Your task to perform on an android device: What's on my calendar tomorrow? Image 0: 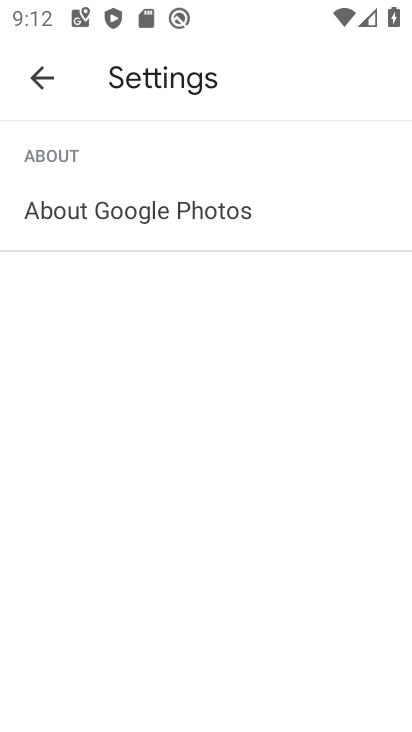
Step 0: press home button
Your task to perform on an android device: What's on my calendar tomorrow? Image 1: 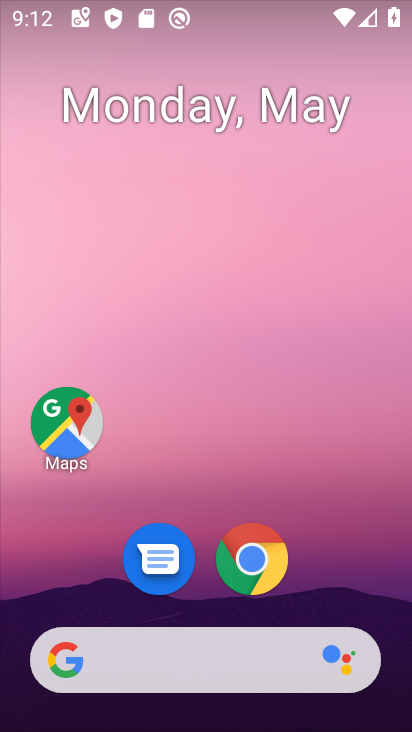
Step 1: drag from (337, 564) to (229, 164)
Your task to perform on an android device: What's on my calendar tomorrow? Image 2: 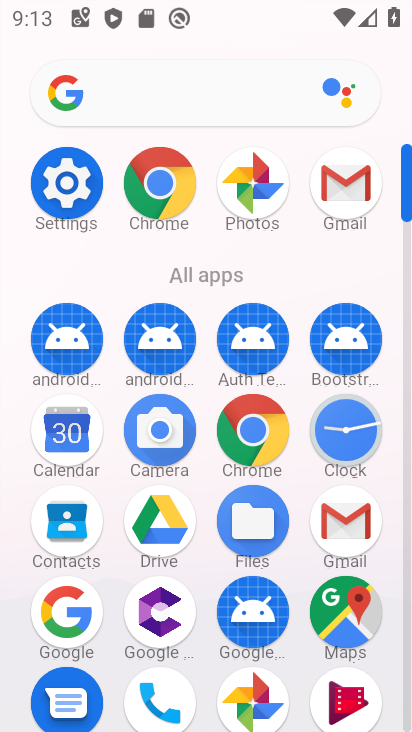
Step 2: click (66, 436)
Your task to perform on an android device: What's on my calendar tomorrow? Image 3: 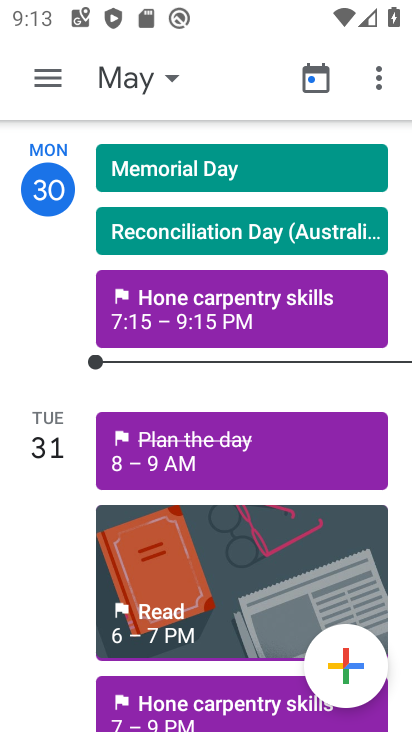
Step 3: click (46, 74)
Your task to perform on an android device: What's on my calendar tomorrow? Image 4: 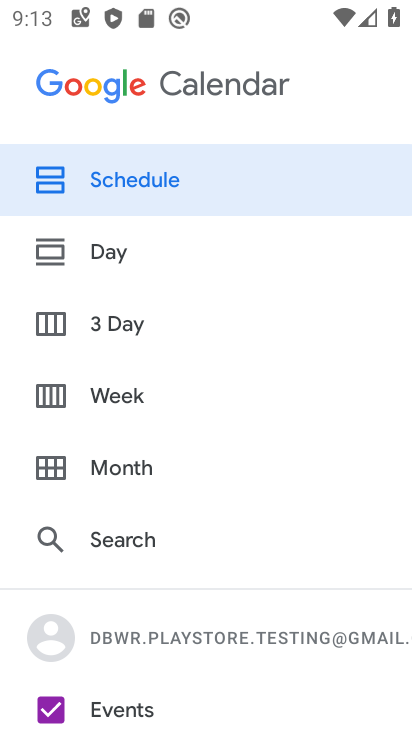
Step 4: click (96, 246)
Your task to perform on an android device: What's on my calendar tomorrow? Image 5: 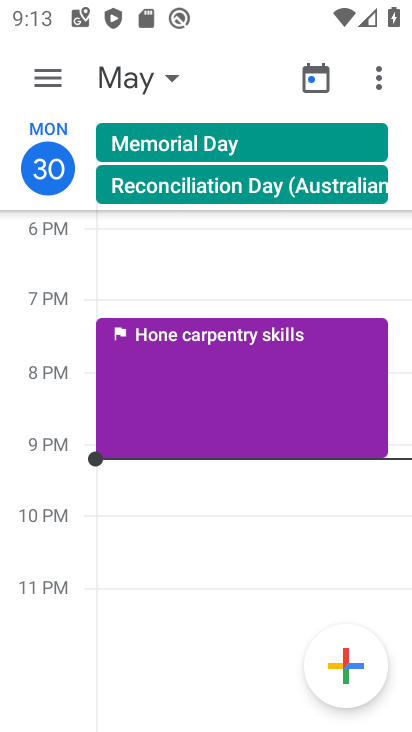
Step 5: click (177, 78)
Your task to perform on an android device: What's on my calendar tomorrow? Image 6: 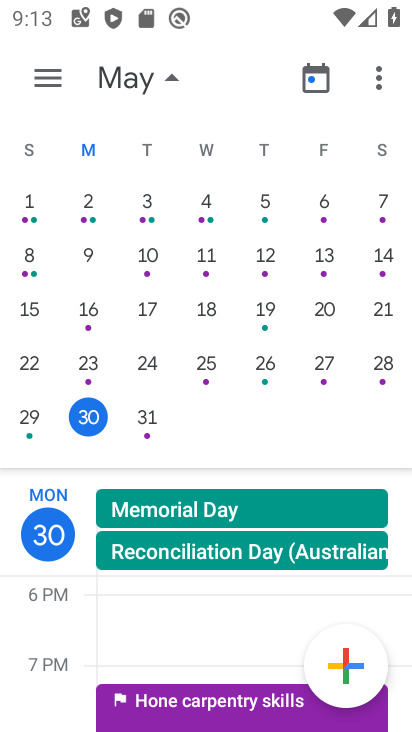
Step 6: click (150, 416)
Your task to perform on an android device: What's on my calendar tomorrow? Image 7: 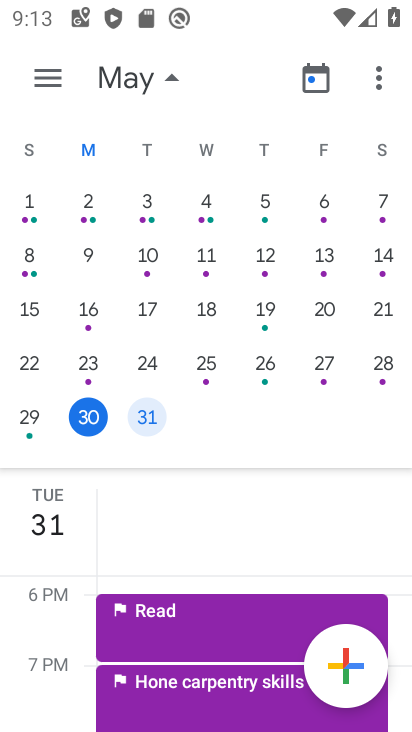
Step 7: task complete